Your task to perform on an android device: Go to location settings Image 0: 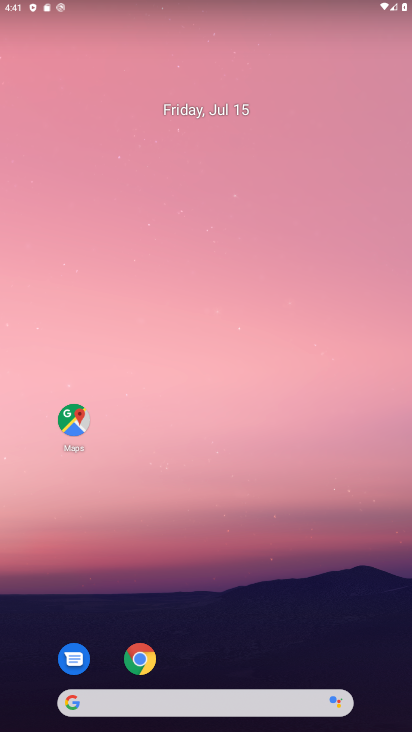
Step 0: drag from (234, 536) to (195, 84)
Your task to perform on an android device: Go to location settings Image 1: 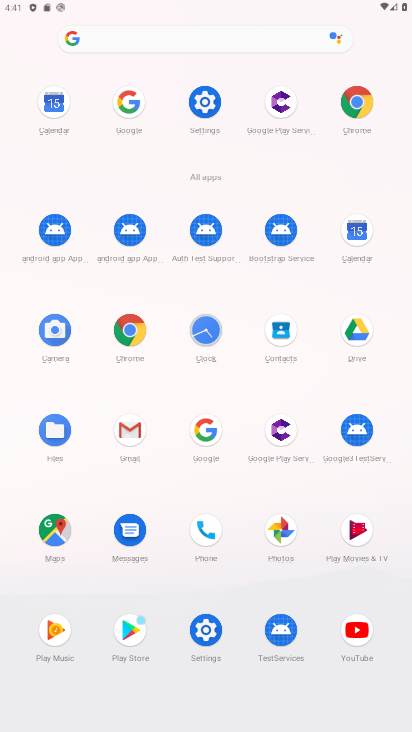
Step 1: click (197, 100)
Your task to perform on an android device: Go to location settings Image 2: 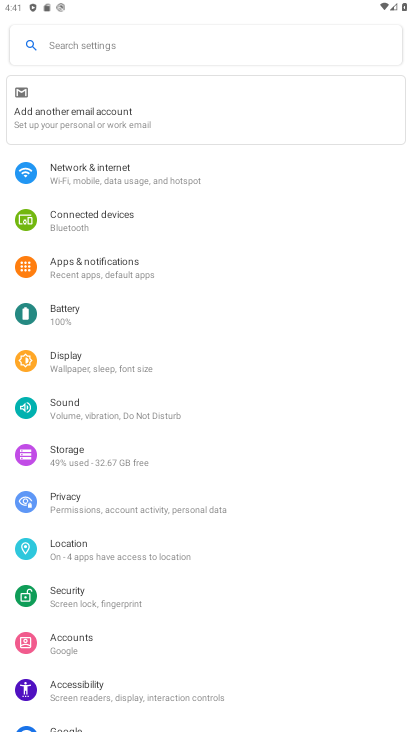
Step 2: click (97, 548)
Your task to perform on an android device: Go to location settings Image 3: 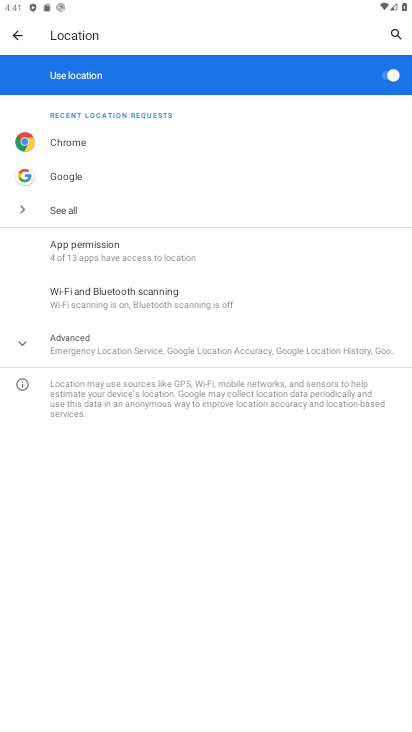
Step 3: task complete